Your task to perform on an android device: Search for shimano brake pads on Walmart Image 0: 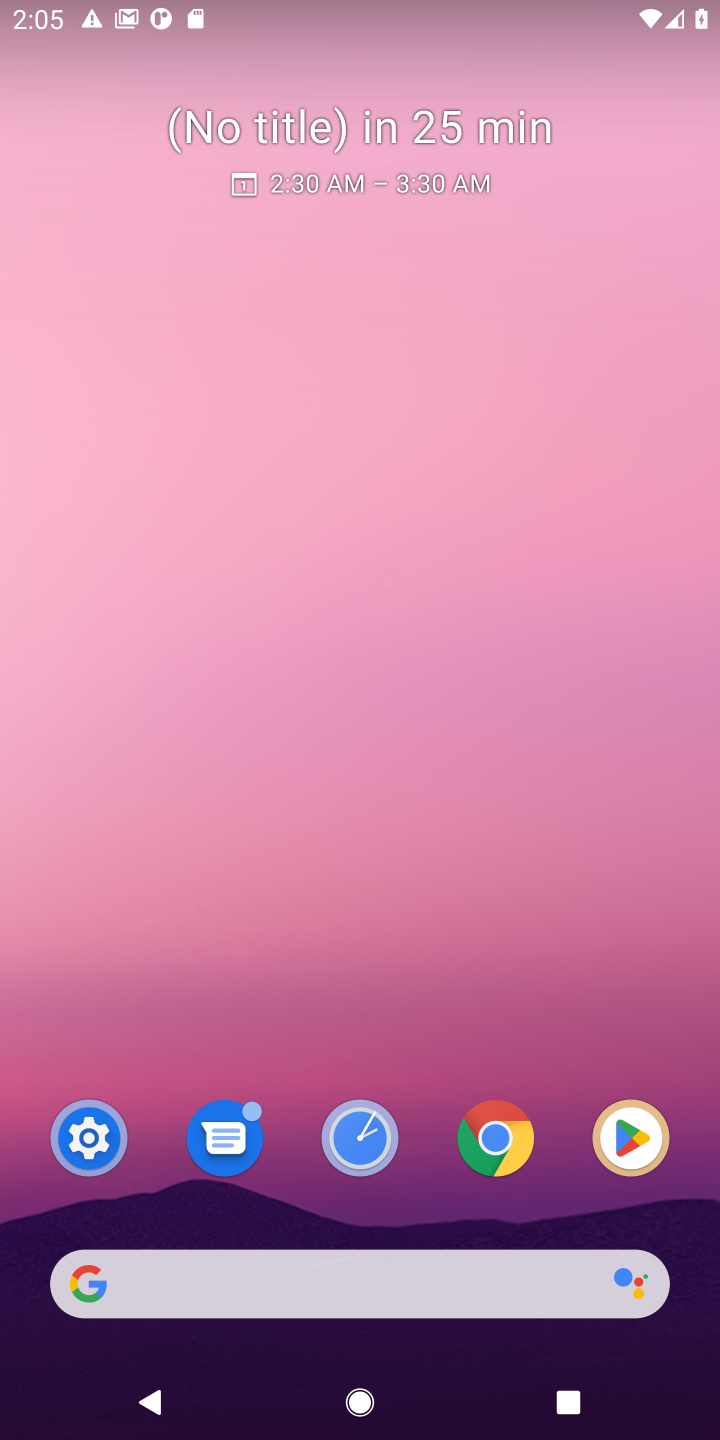
Step 0: drag from (526, 994) to (581, 13)
Your task to perform on an android device: Search for shimano brake pads on Walmart Image 1: 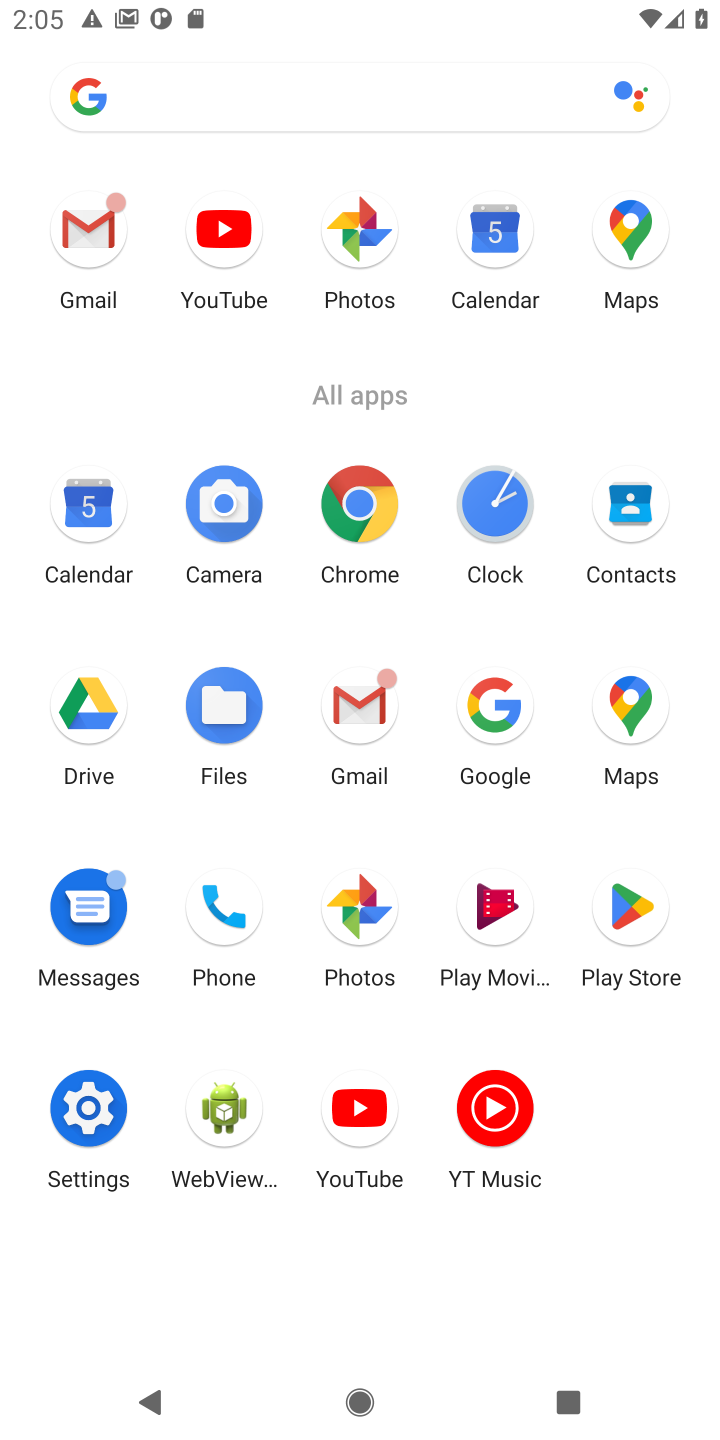
Step 1: click (353, 507)
Your task to perform on an android device: Search for shimano brake pads on Walmart Image 2: 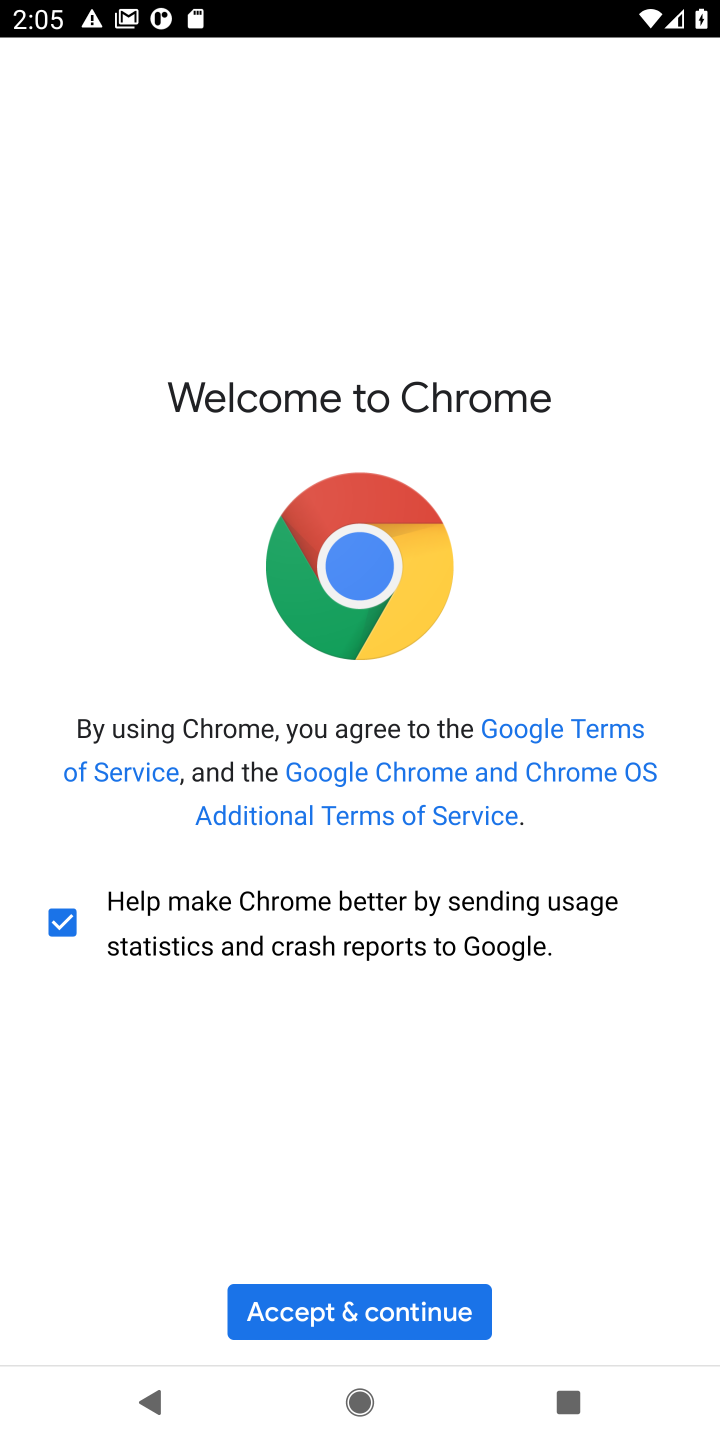
Step 2: click (410, 1302)
Your task to perform on an android device: Search for shimano brake pads on Walmart Image 3: 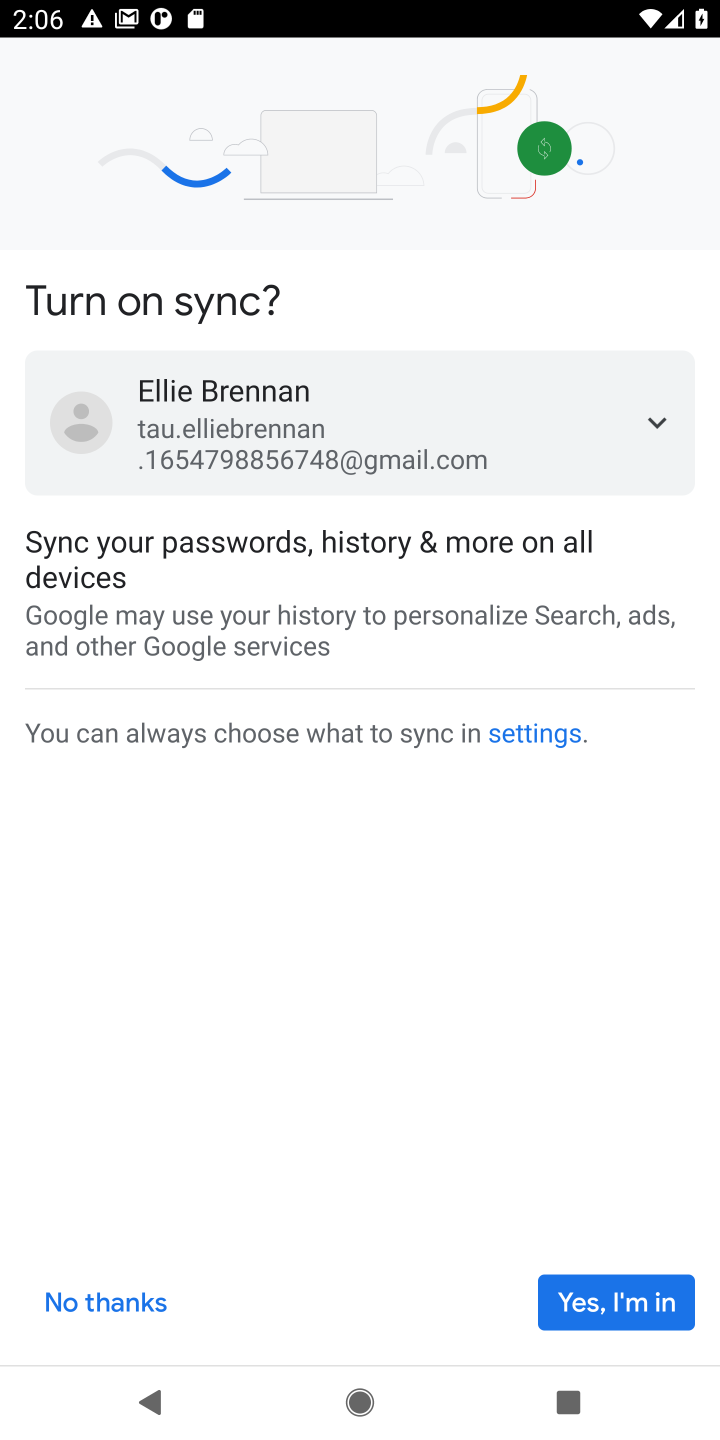
Step 3: click (574, 1303)
Your task to perform on an android device: Search for shimano brake pads on Walmart Image 4: 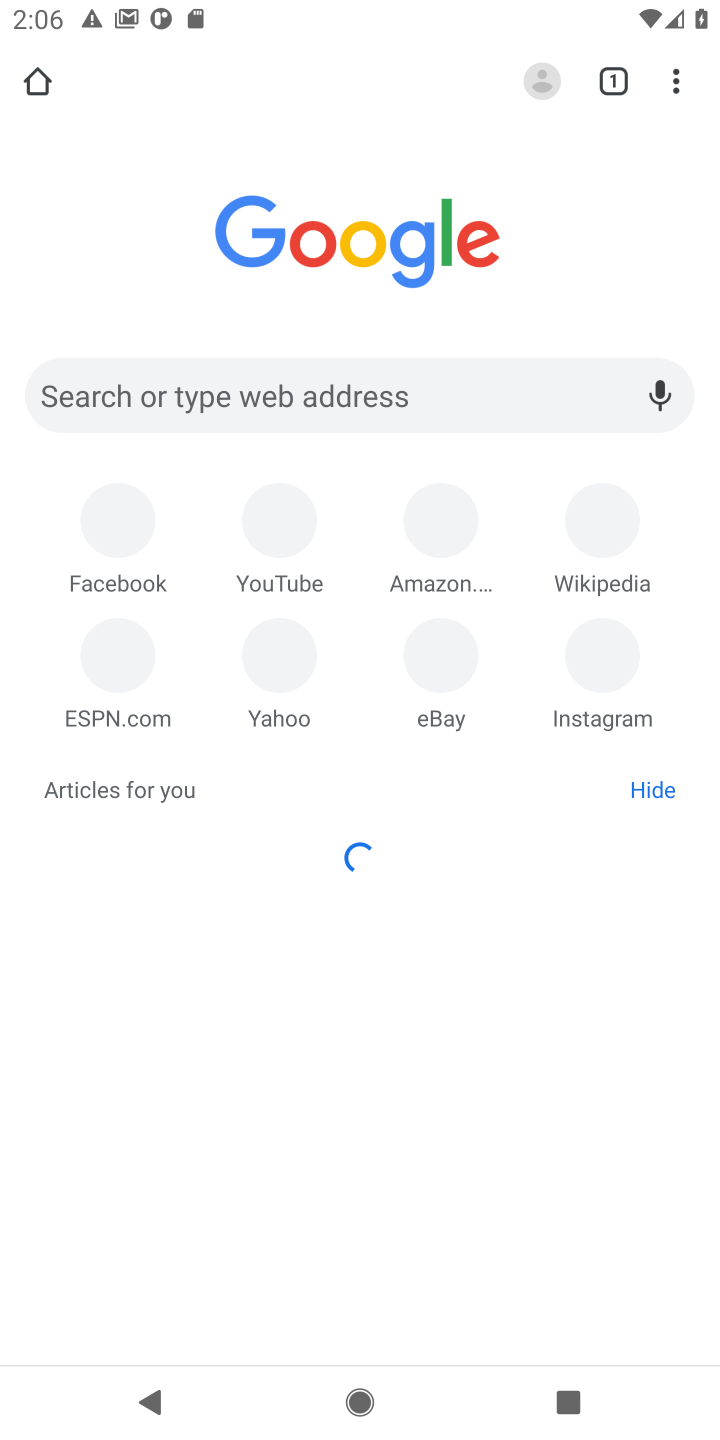
Step 4: click (417, 387)
Your task to perform on an android device: Search for shimano brake pads on Walmart Image 5: 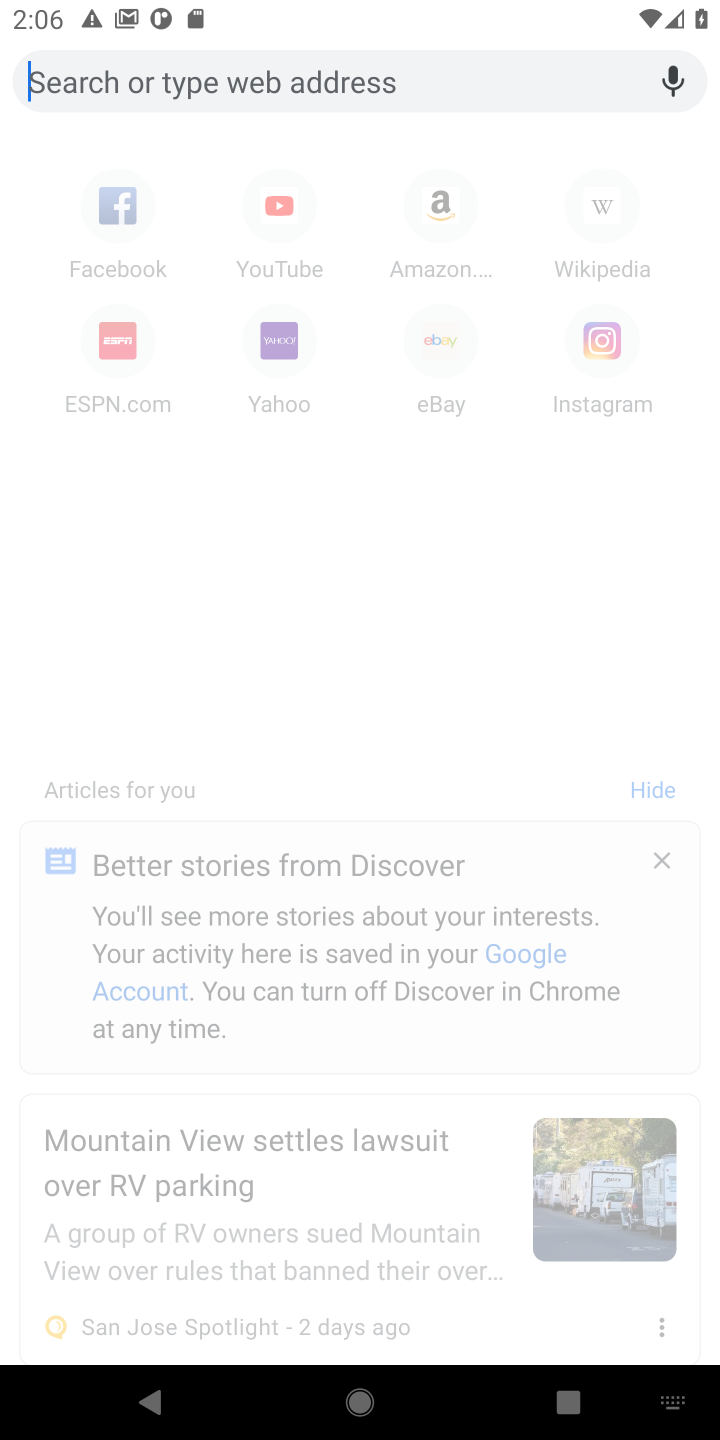
Step 5: type "shimano brake pads on Walmart"
Your task to perform on an android device: Search for shimano brake pads on Walmart Image 6: 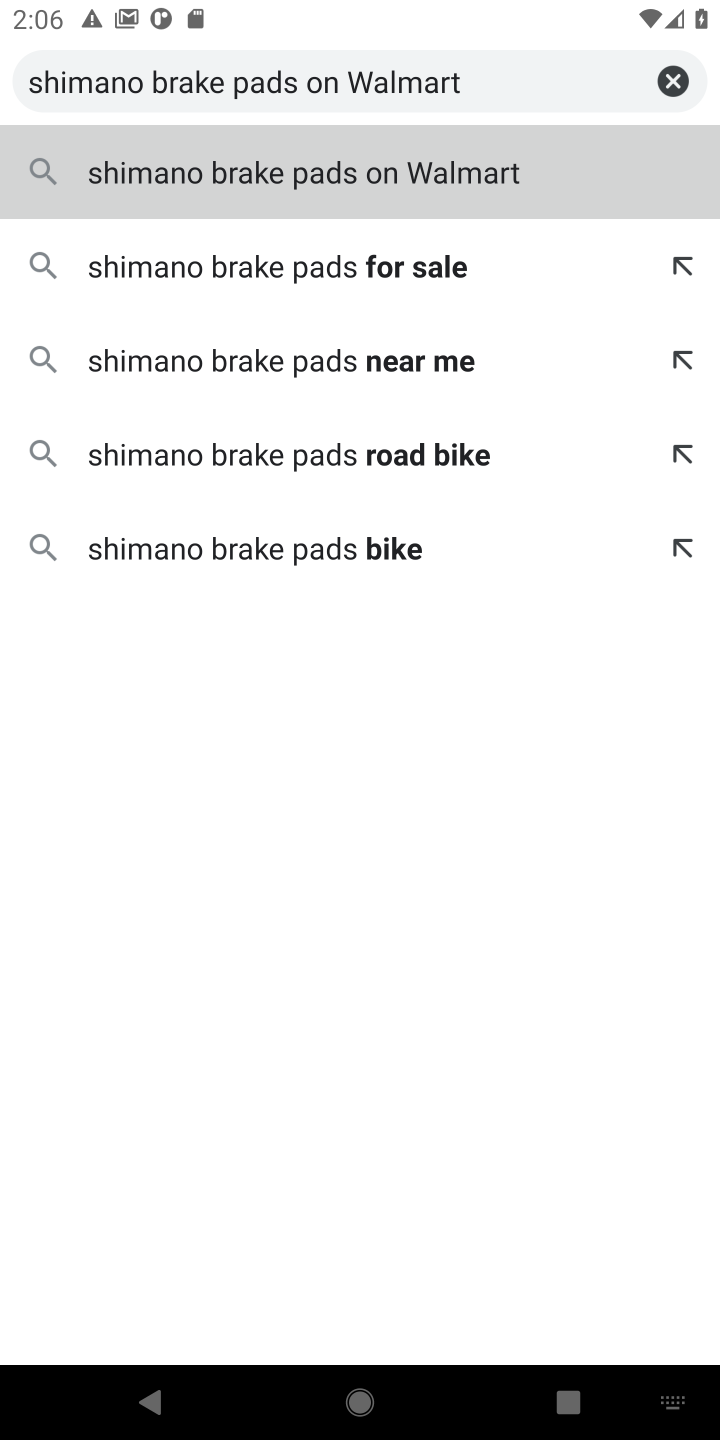
Step 6: press enter
Your task to perform on an android device: Search for shimano brake pads on Walmart Image 7: 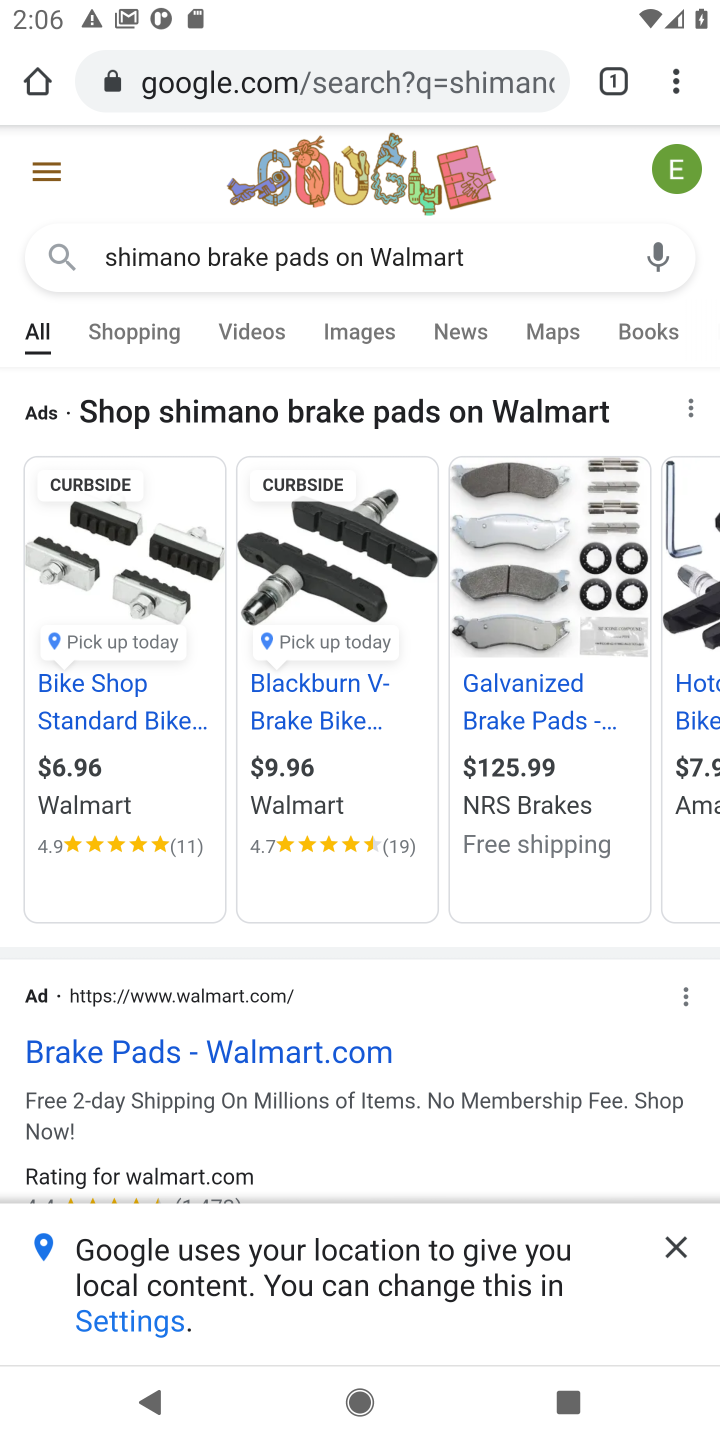
Step 7: drag from (469, 1109) to (588, 58)
Your task to perform on an android device: Search for shimano brake pads on Walmart Image 8: 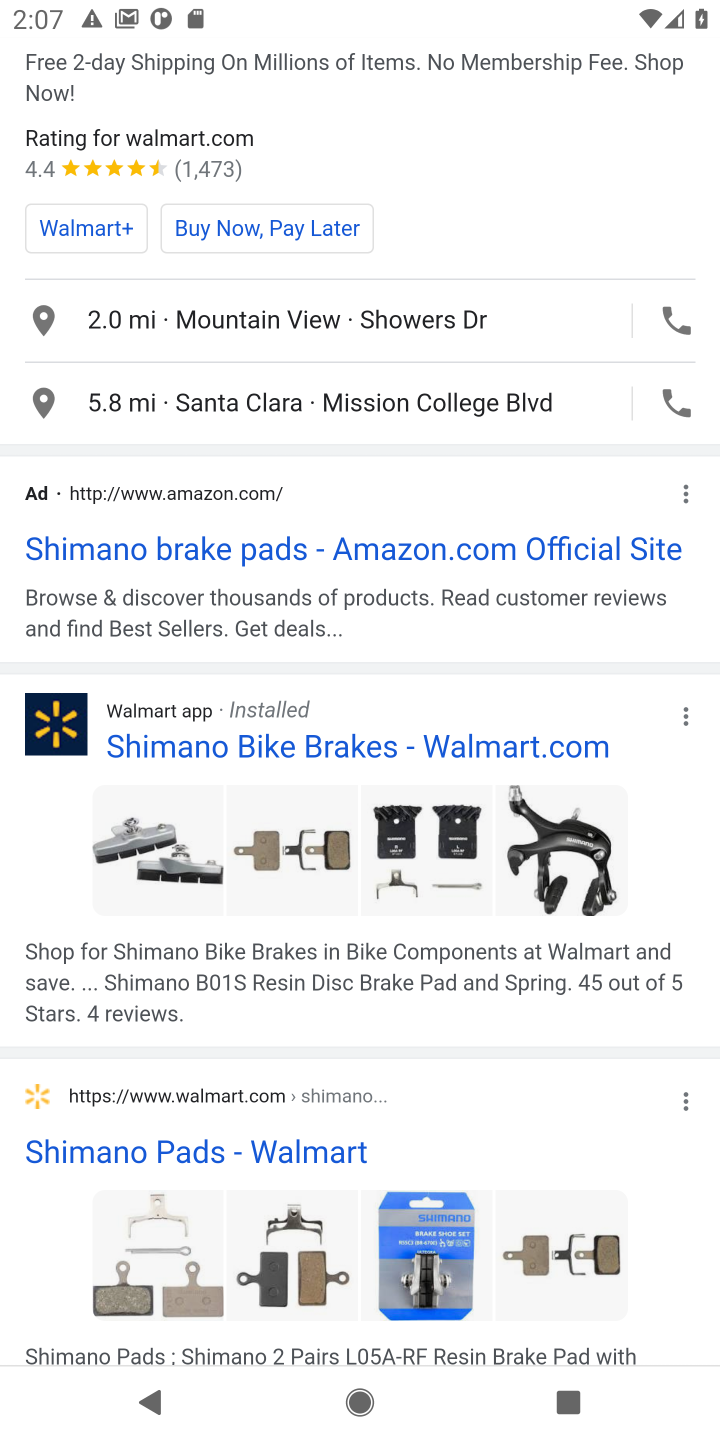
Step 8: click (311, 760)
Your task to perform on an android device: Search for shimano brake pads on Walmart Image 9: 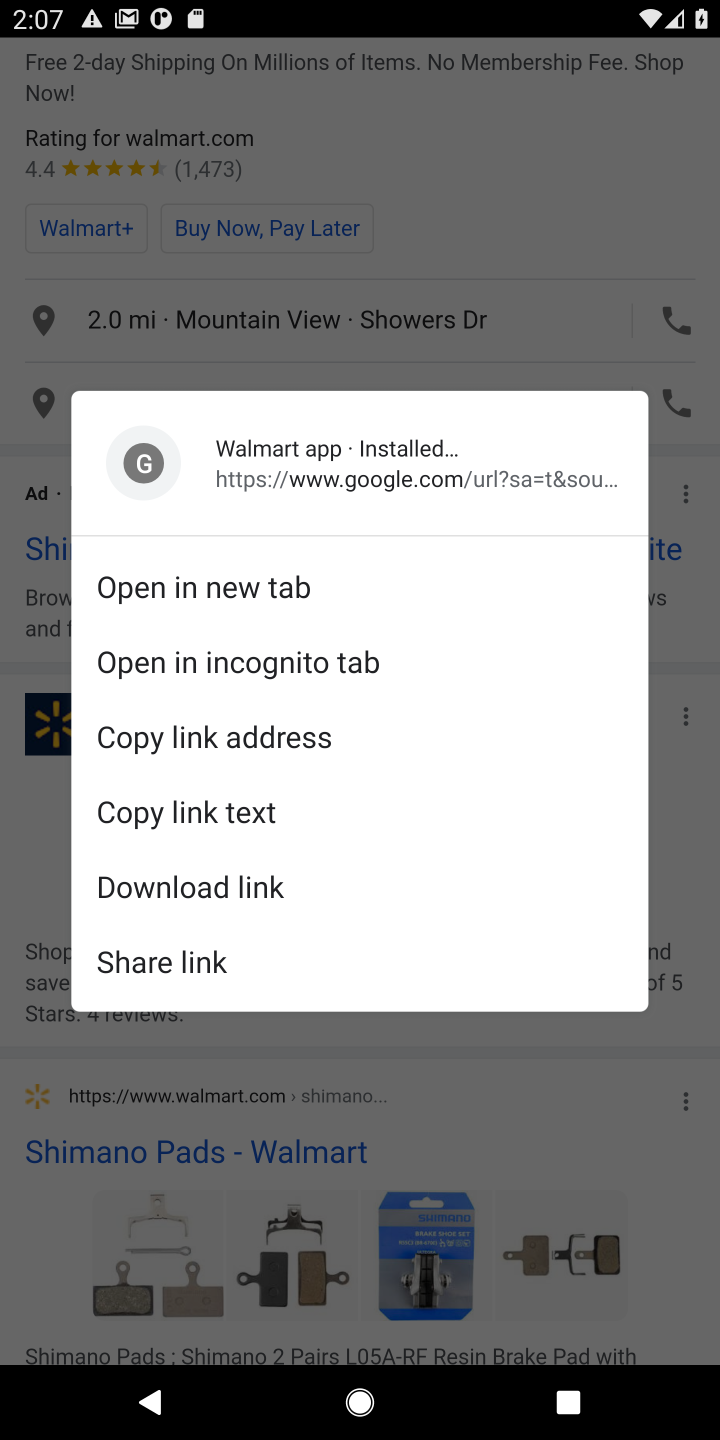
Step 9: click (340, 1173)
Your task to perform on an android device: Search for shimano brake pads on Walmart Image 10: 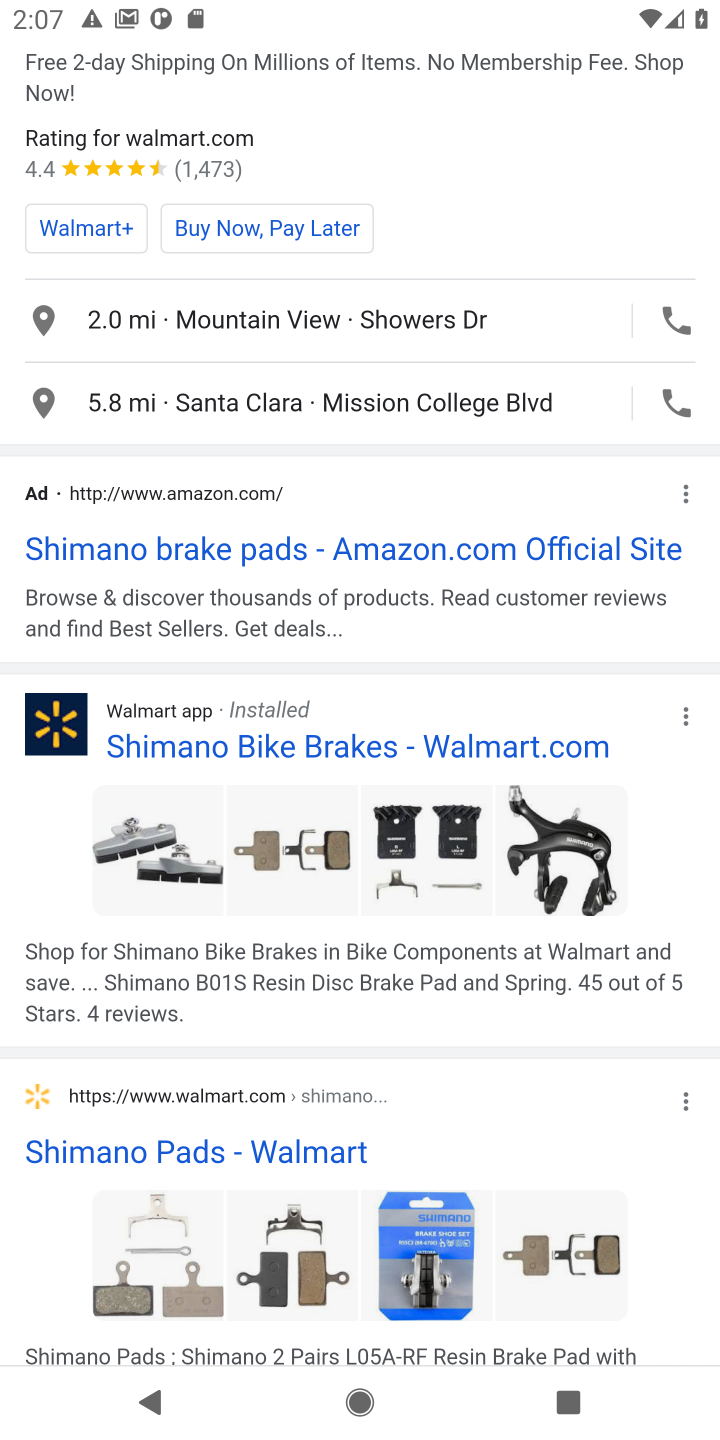
Step 10: click (223, 745)
Your task to perform on an android device: Search for shimano brake pads on Walmart Image 11: 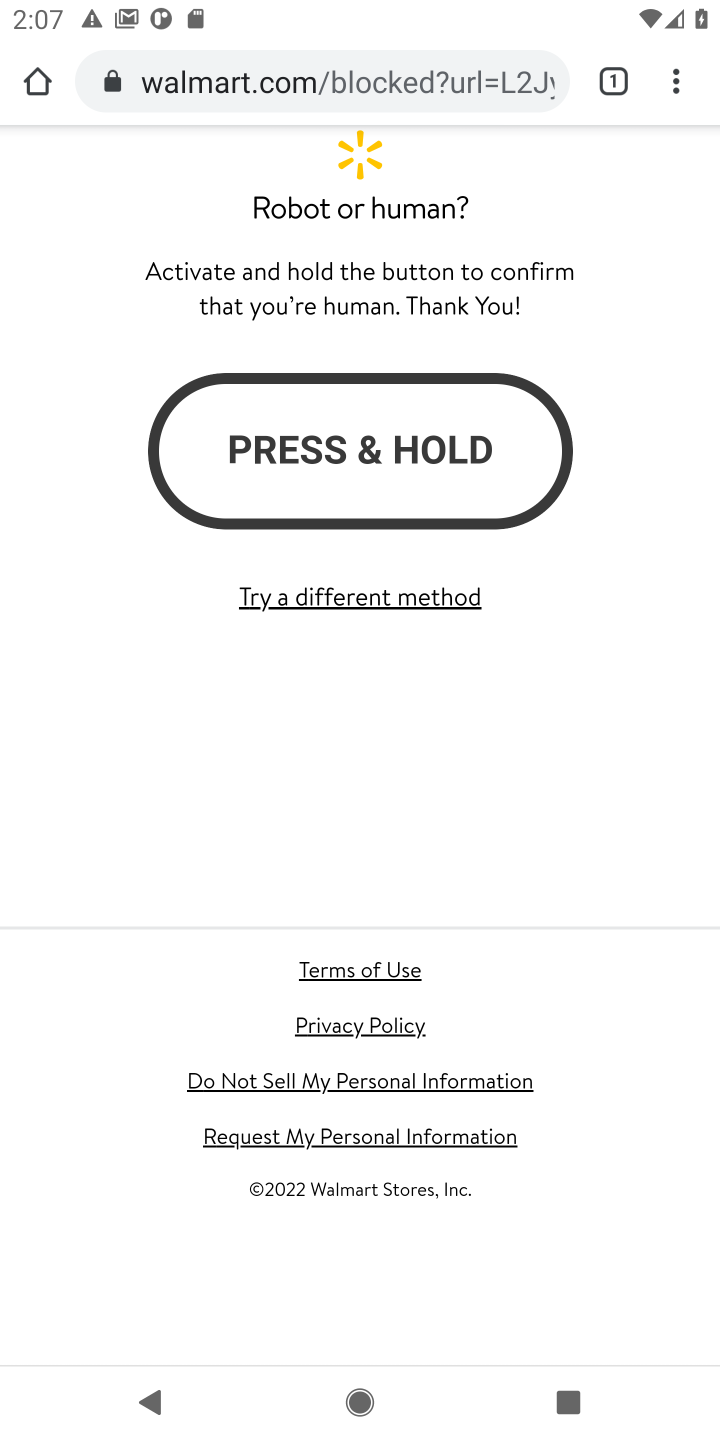
Step 11: click (354, 469)
Your task to perform on an android device: Search for shimano brake pads on Walmart Image 12: 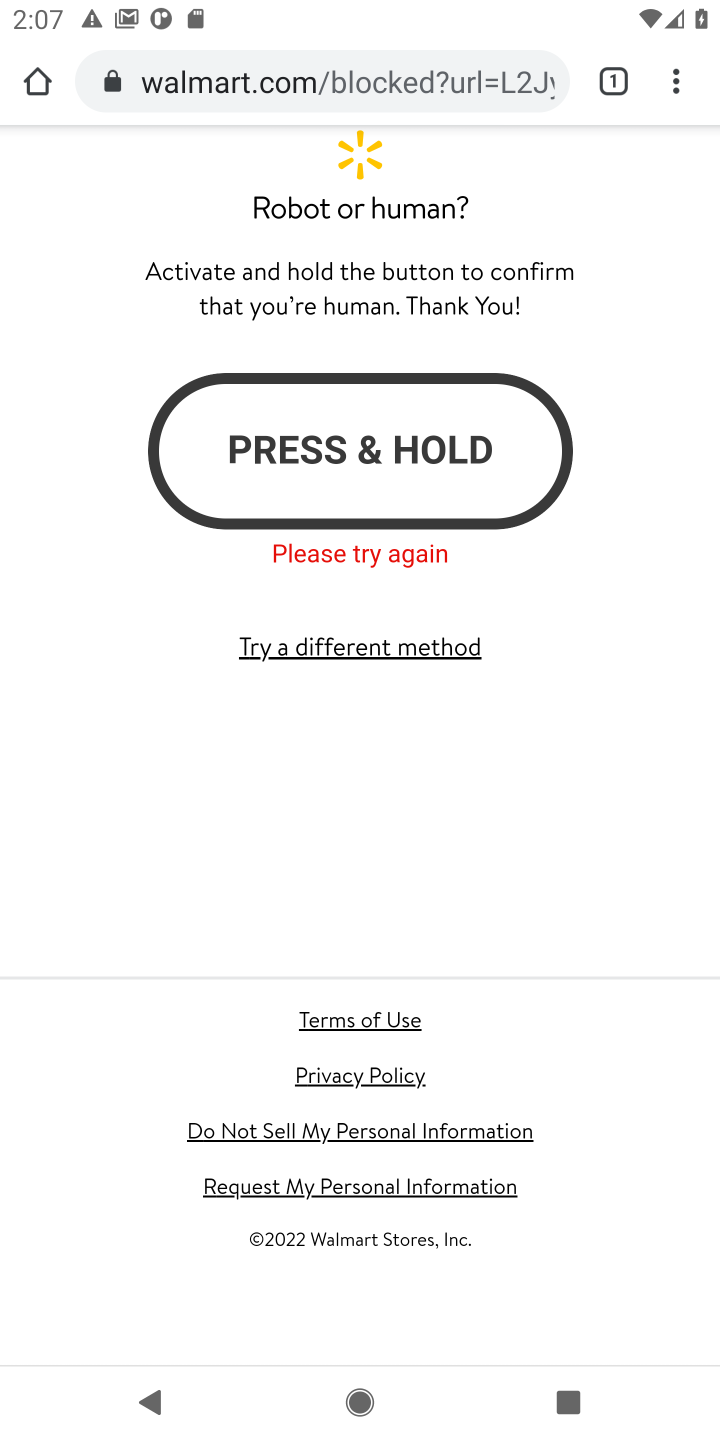
Step 12: task complete